Your task to perform on an android device: Open the map Image 0: 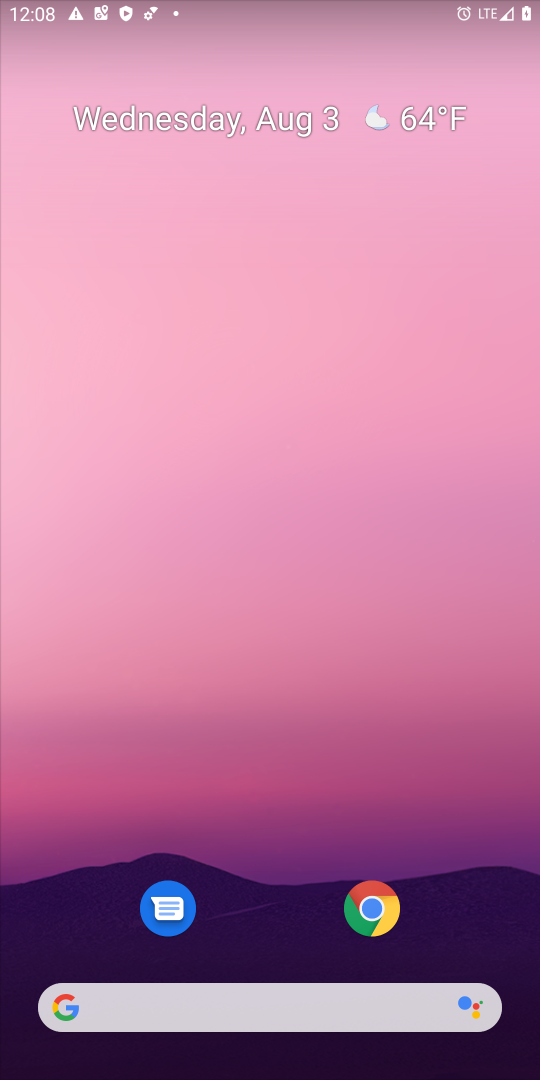
Step 0: drag from (279, 836) to (270, 110)
Your task to perform on an android device: Open the map Image 1: 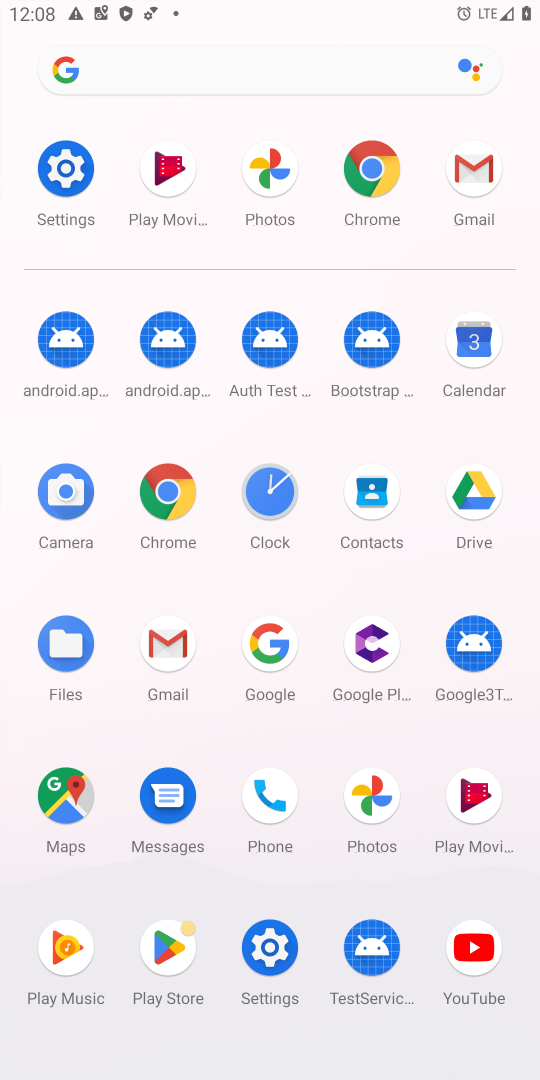
Step 1: click (70, 813)
Your task to perform on an android device: Open the map Image 2: 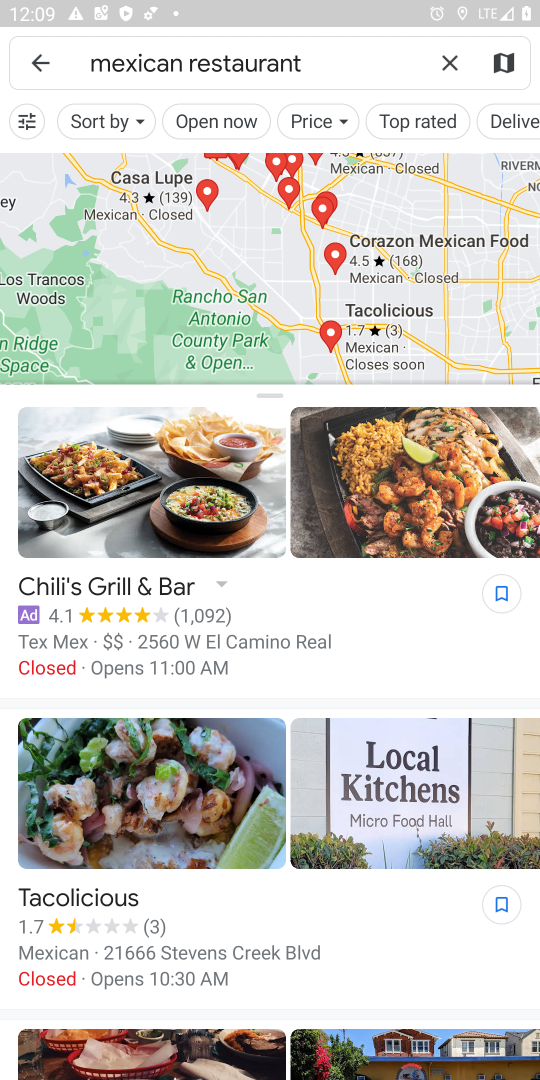
Step 2: task complete